Your task to perform on an android device: Go to CNN.com Image 0: 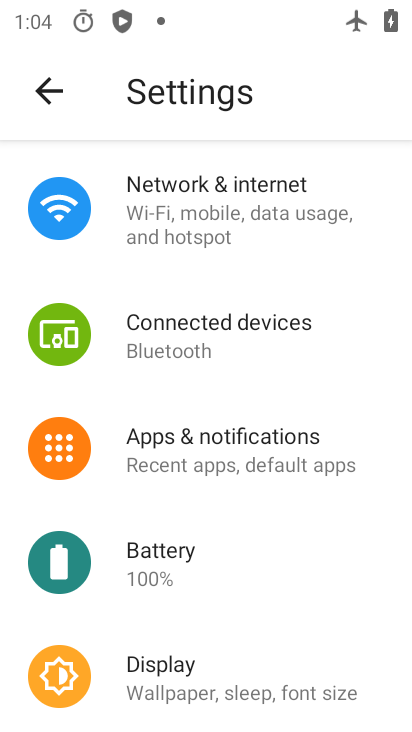
Step 0: drag from (245, 601) to (54, 558)
Your task to perform on an android device: Go to CNN.com Image 1: 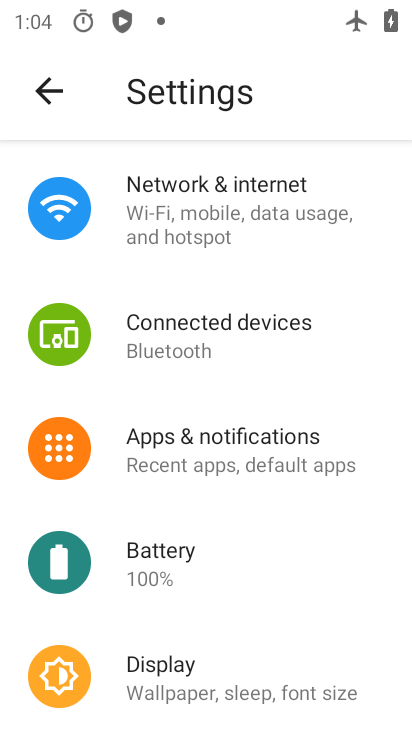
Step 1: press home button
Your task to perform on an android device: Go to CNN.com Image 2: 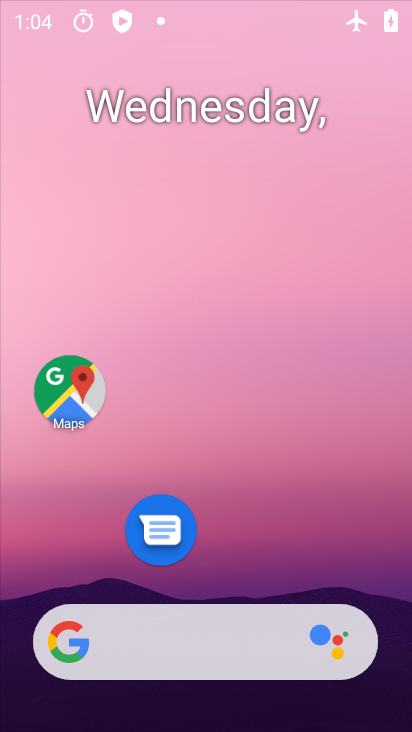
Step 2: drag from (239, 629) to (312, 18)
Your task to perform on an android device: Go to CNN.com Image 3: 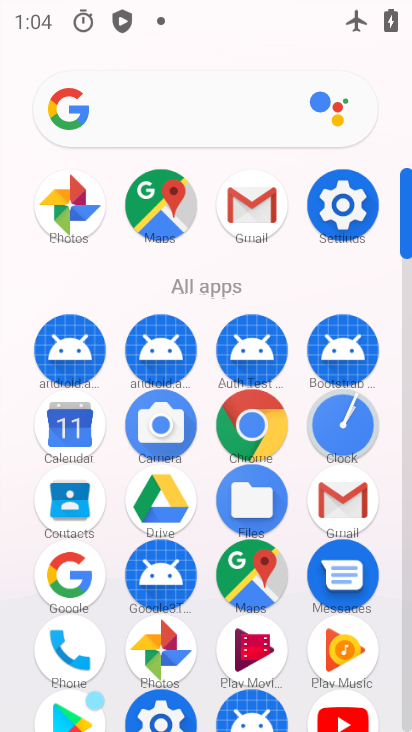
Step 3: click (170, 116)
Your task to perform on an android device: Go to CNN.com Image 4: 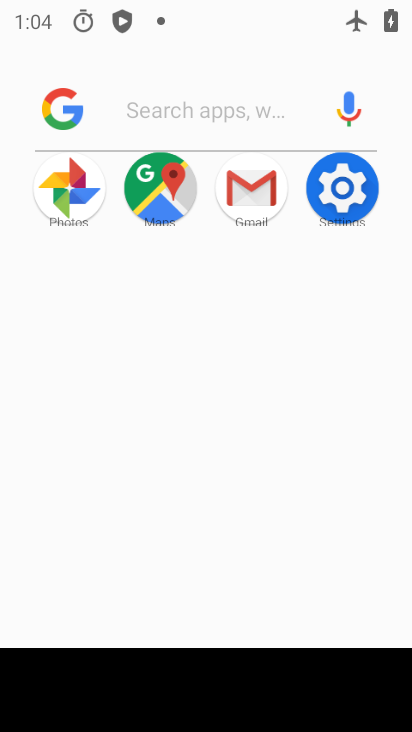
Step 4: type "cnn"
Your task to perform on an android device: Go to CNN.com Image 5: 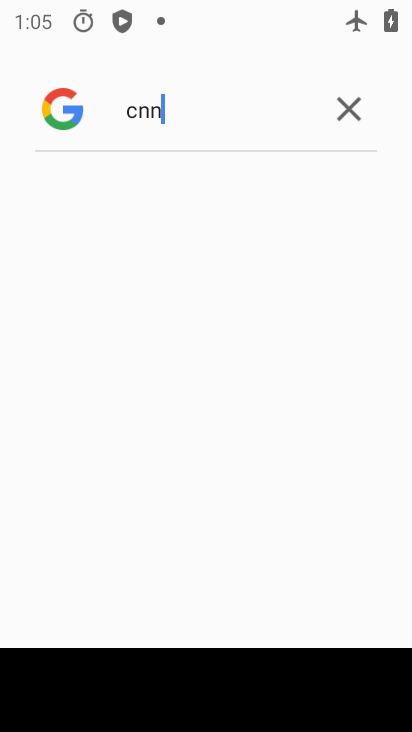
Step 5: task complete